Your task to perform on an android device: turn on location history Image 0: 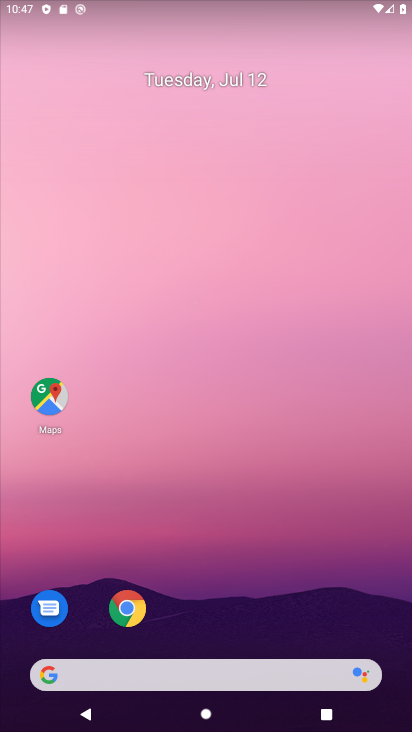
Step 0: drag from (196, 557) to (110, 13)
Your task to perform on an android device: turn on location history Image 1: 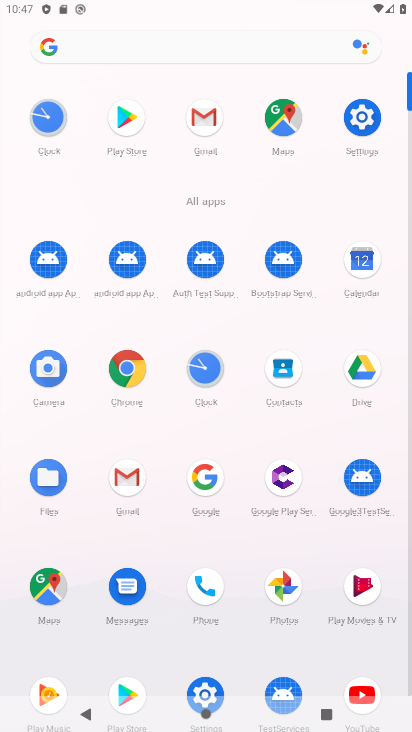
Step 1: click (343, 128)
Your task to perform on an android device: turn on location history Image 2: 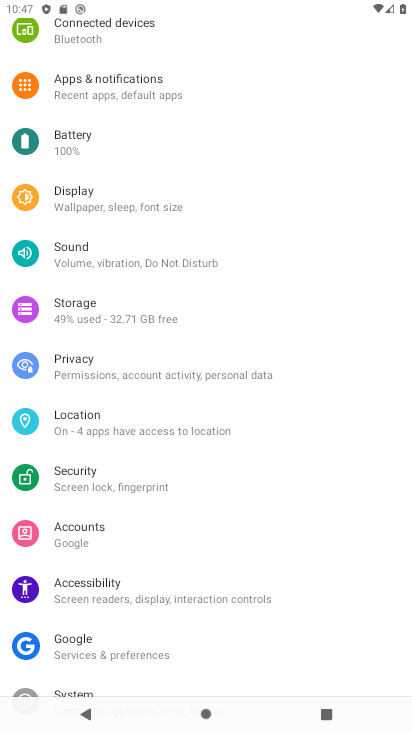
Step 2: click (159, 418)
Your task to perform on an android device: turn on location history Image 3: 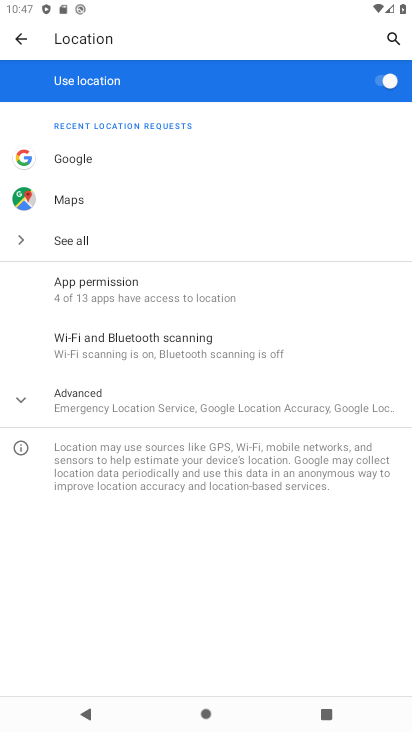
Step 3: click (73, 405)
Your task to perform on an android device: turn on location history Image 4: 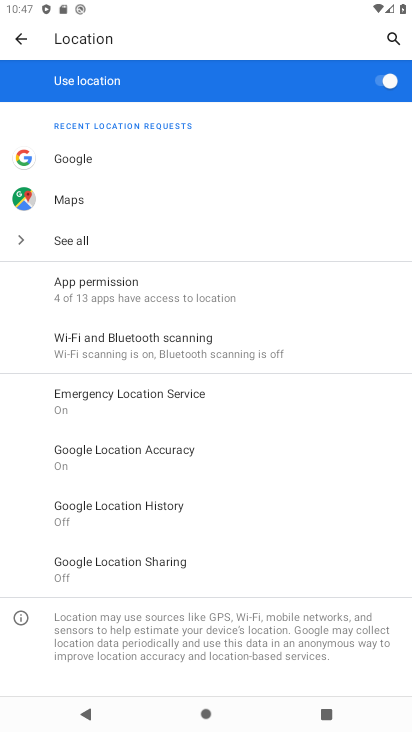
Step 4: click (176, 511)
Your task to perform on an android device: turn on location history Image 5: 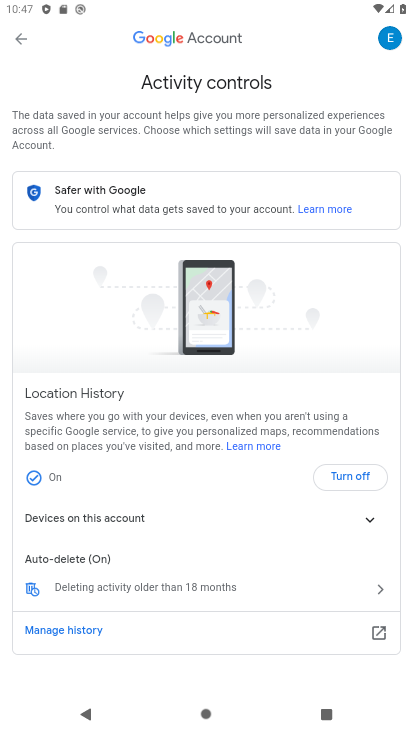
Step 5: task complete